Your task to perform on an android device: What is the recent news? Image 0: 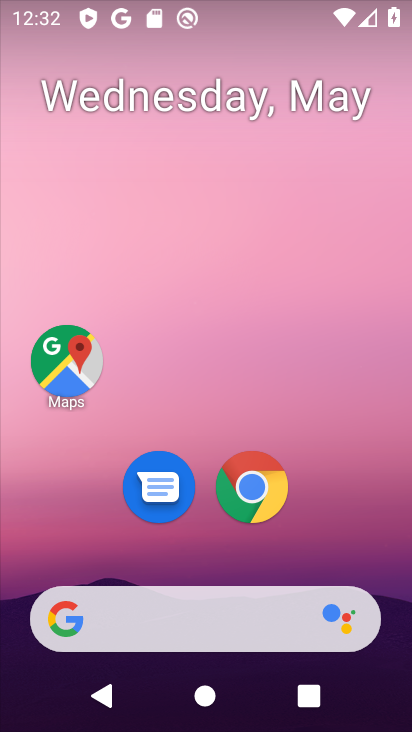
Step 0: drag from (228, 577) to (249, 0)
Your task to perform on an android device: What is the recent news? Image 1: 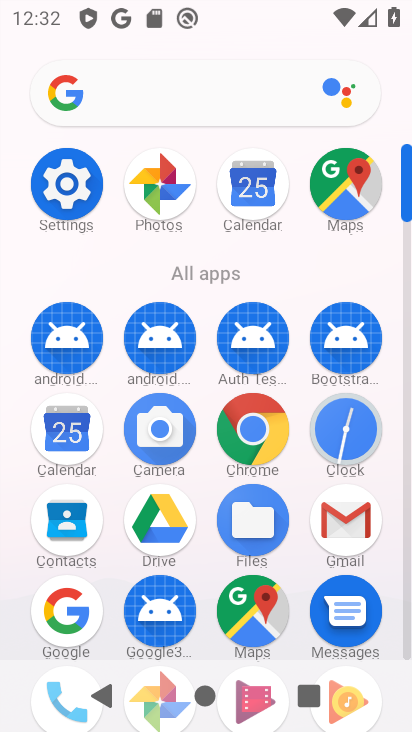
Step 1: click (177, 105)
Your task to perform on an android device: What is the recent news? Image 2: 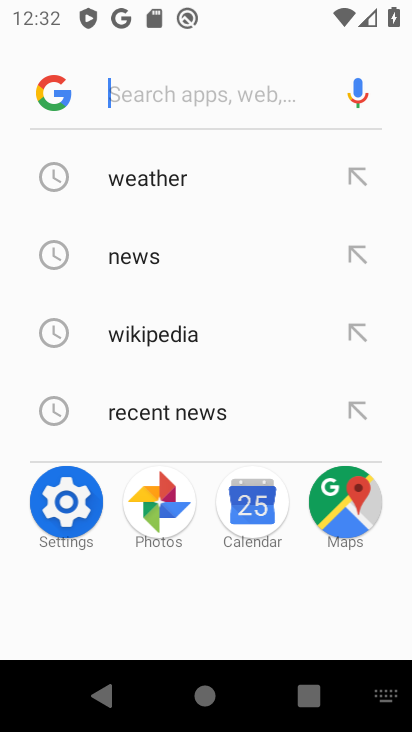
Step 2: click (182, 406)
Your task to perform on an android device: What is the recent news? Image 3: 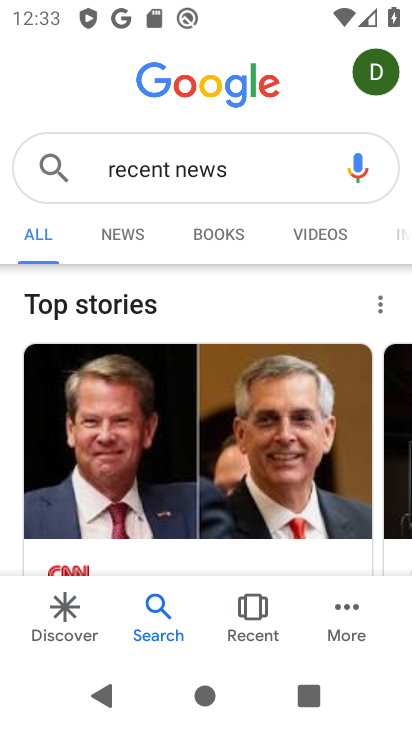
Step 3: task complete